Your task to perform on an android device: check storage Image 0: 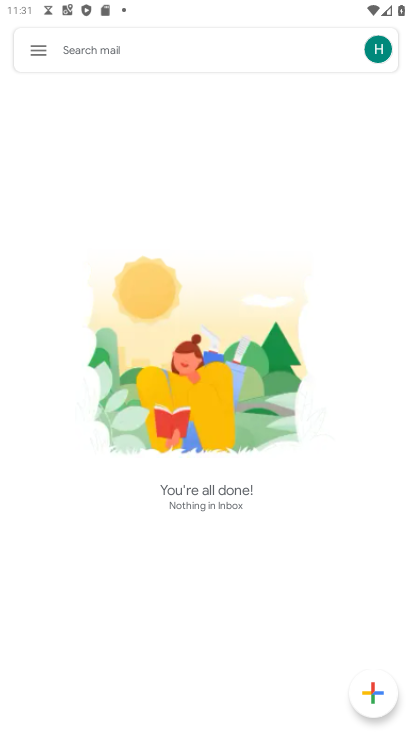
Step 0: press home button
Your task to perform on an android device: check storage Image 1: 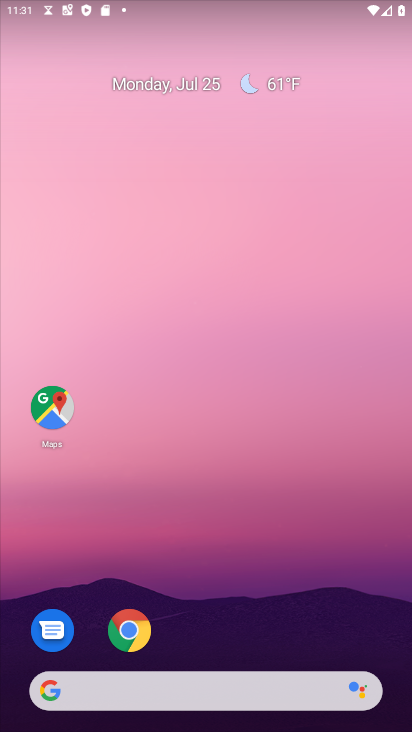
Step 1: drag from (325, 582) to (310, 120)
Your task to perform on an android device: check storage Image 2: 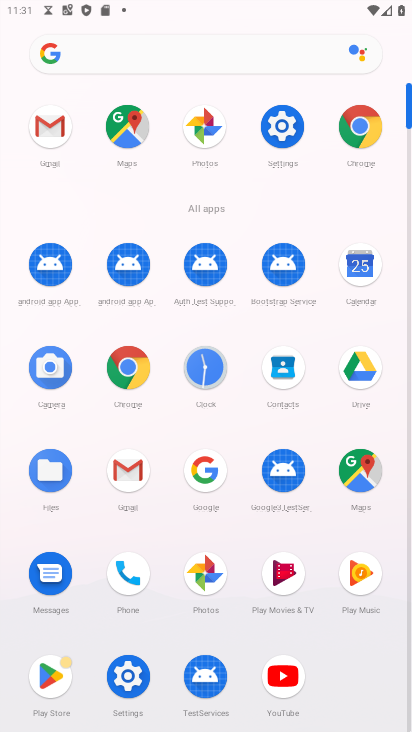
Step 2: click (287, 138)
Your task to perform on an android device: check storage Image 3: 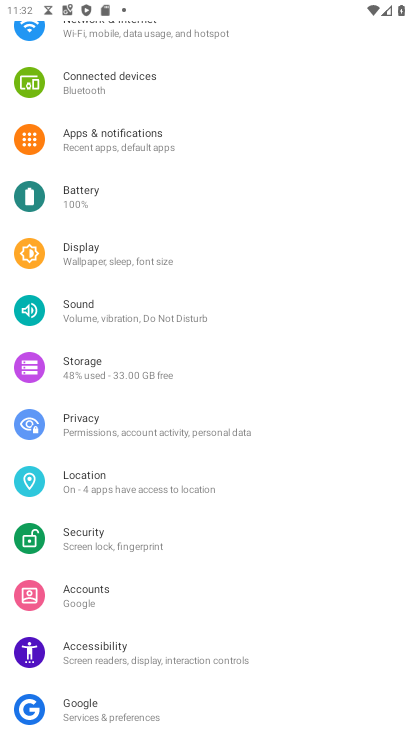
Step 3: click (94, 364)
Your task to perform on an android device: check storage Image 4: 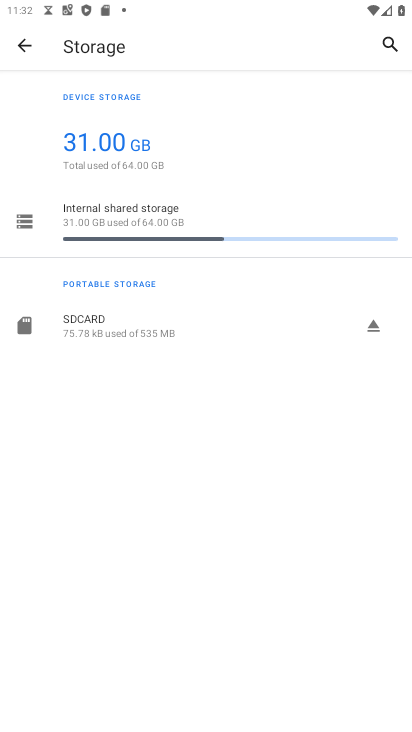
Step 4: task complete